Your task to perform on an android device: check data usage Image 0: 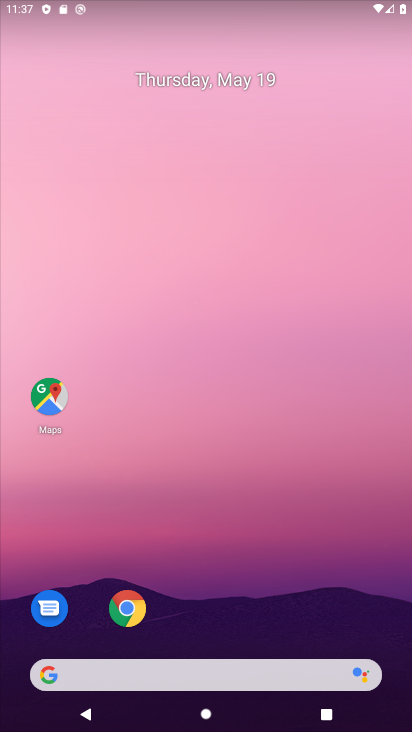
Step 0: drag from (335, 616) to (384, 120)
Your task to perform on an android device: check data usage Image 1: 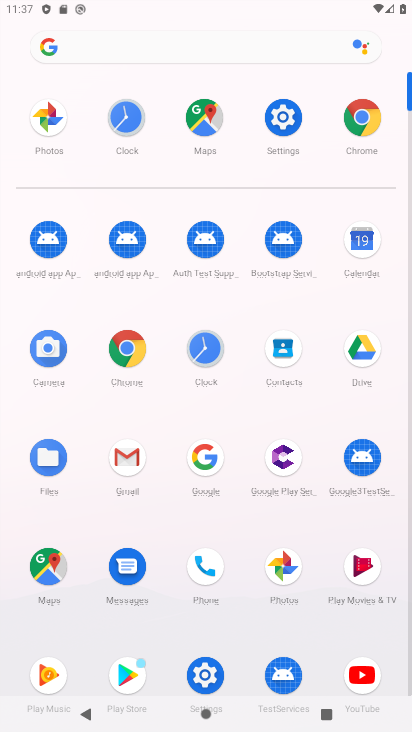
Step 1: click (295, 113)
Your task to perform on an android device: check data usage Image 2: 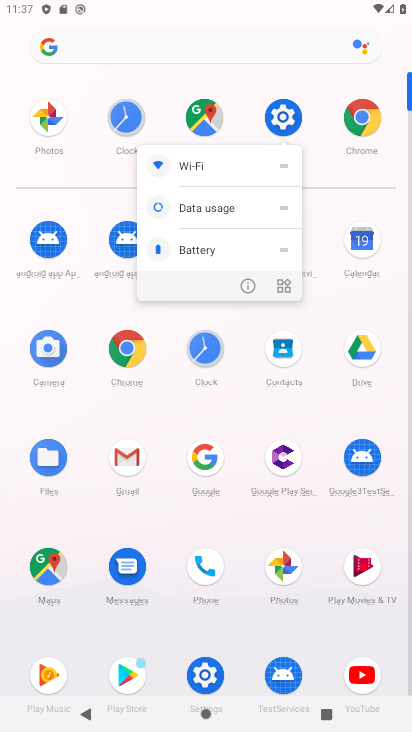
Step 2: click (295, 113)
Your task to perform on an android device: check data usage Image 3: 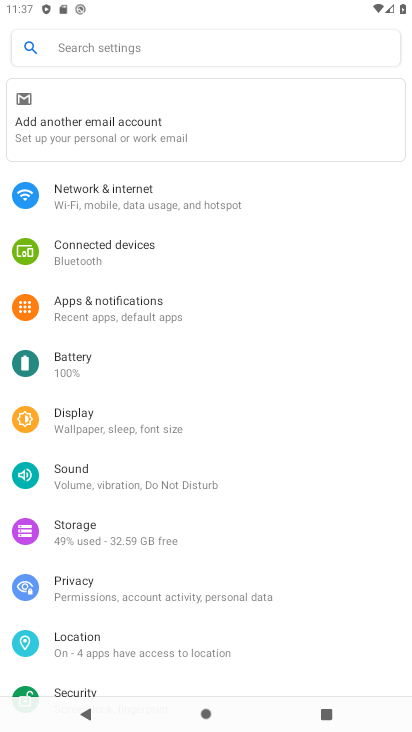
Step 3: drag from (325, 556) to (327, 362)
Your task to perform on an android device: check data usage Image 4: 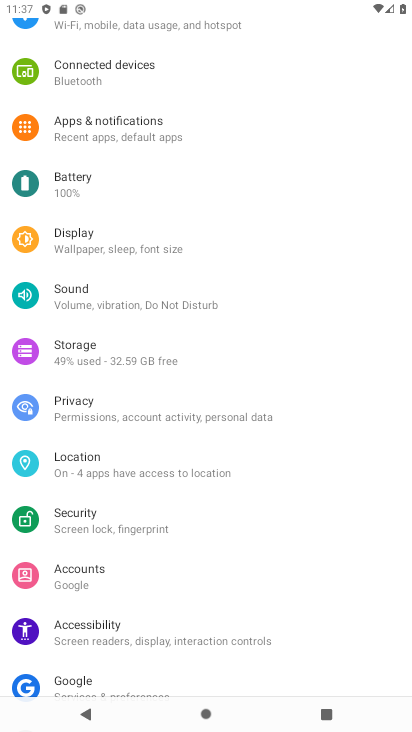
Step 4: drag from (329, 576) to (339, 472)
Your task to perform on an android device: check data usage Image 5: 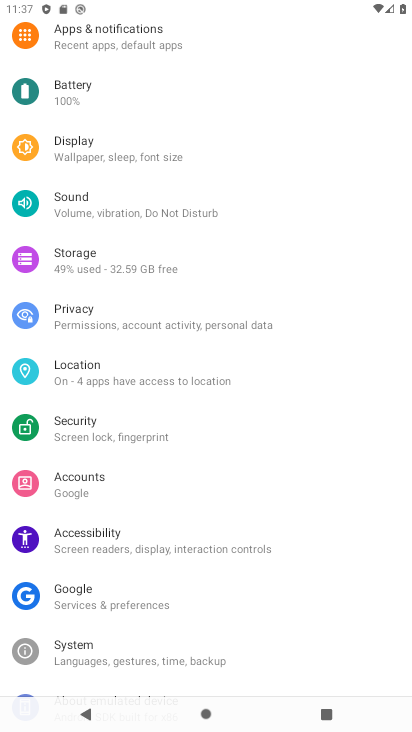
Step 5: drag from (341, 591) to (334, 420)
Your task to perform on an android device: check data usage Image 6: 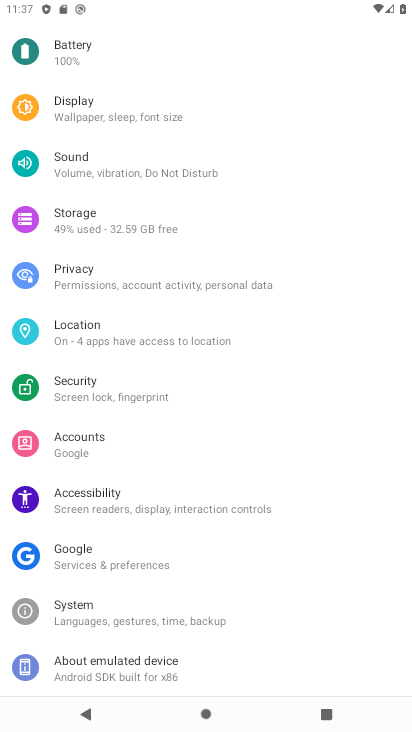
Step 6: drag from (330, 554) to (332, 405)
Your task to perform on an android device: check data usage Image 7: 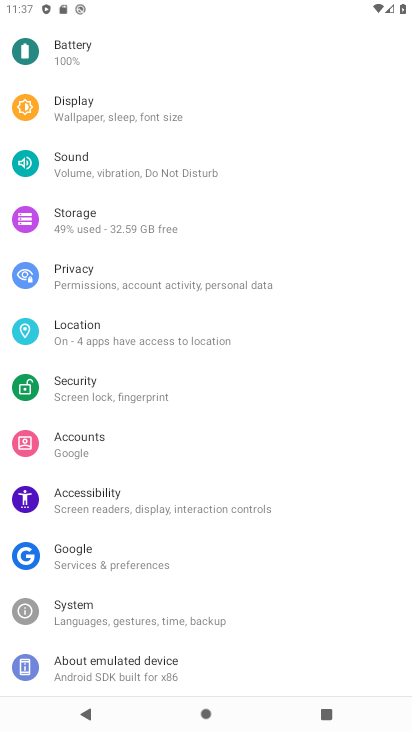
Step 7: drag from (311, 597) to (335, 397)
Your task to perform on an android device: check data usage Image 8: 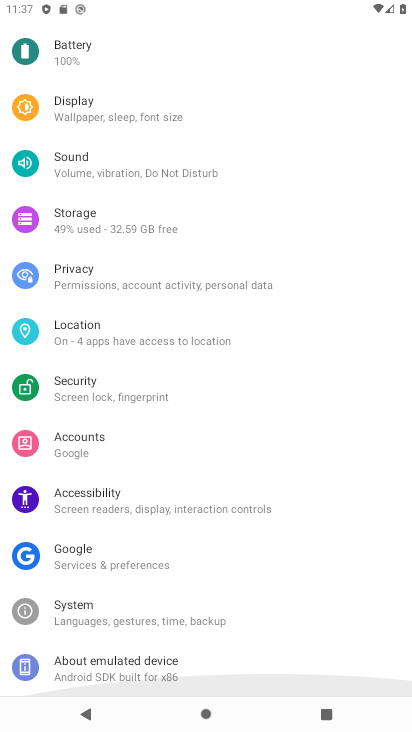
Step 8: drag from (348, 315) to (346, 445)
Your task to perform on an android device: check data usage Image 9: 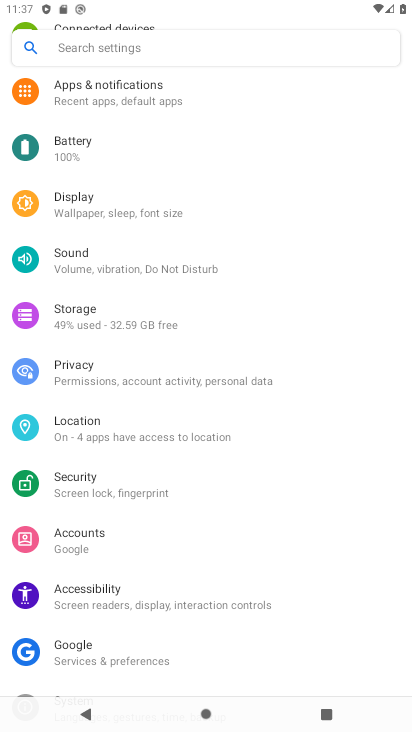
Step 9: drag from (356, 252) to (344, 384)
Your task to perform on an android device: check data usage Image 10: 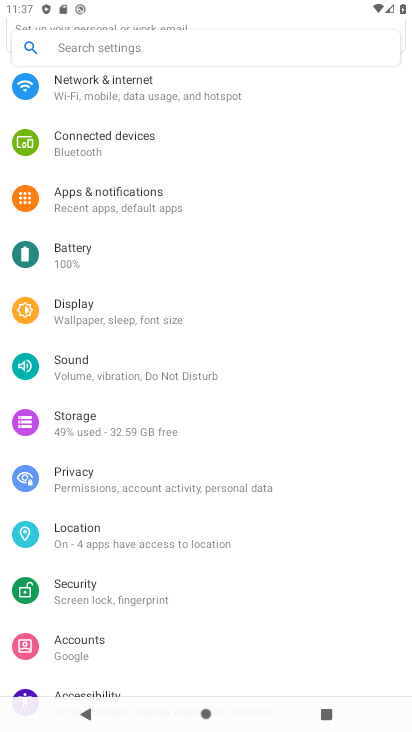
Step 10: drag from (334, 227) to (341, 326)
Your task to perform on an android device: check data usage Image 11: 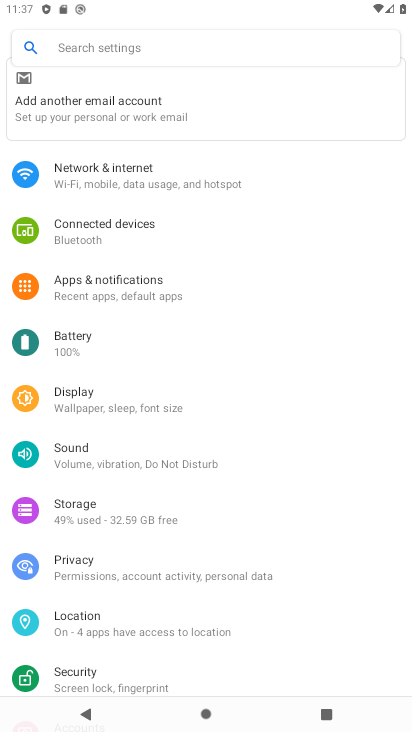
Step 11: drag from (335, 182) to (337, 306)
Your task to perform on an android device: check data usage Image 12: 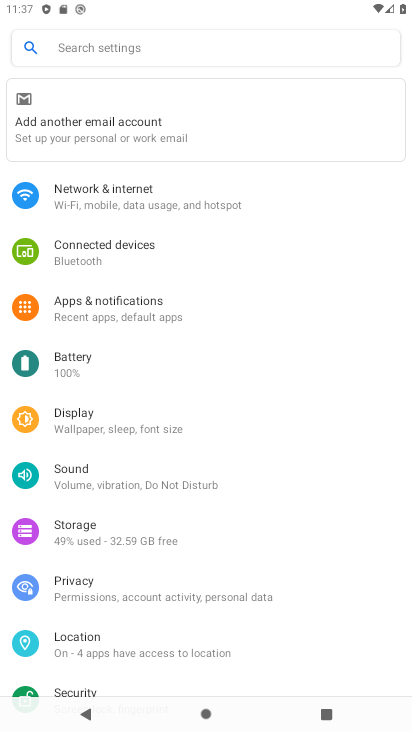
Step 12: drag from (315, 224) to (314, 343)
Your task to perform on an android device: check data usage Image 13: 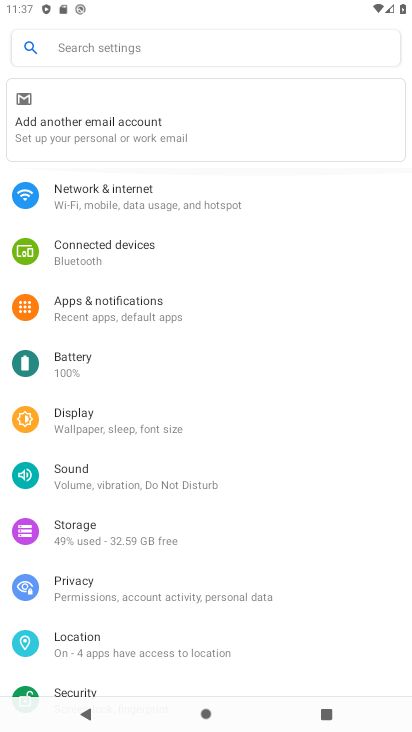
Step 13: click (203, 222)
Your task to perform on an android device: check data usage Image 14: 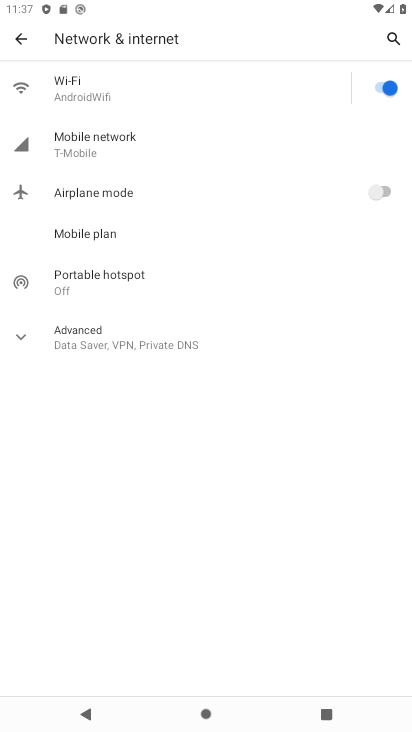
Step 14: click (124, 141)
Your task to perform on an android device: check data usage Image 15: 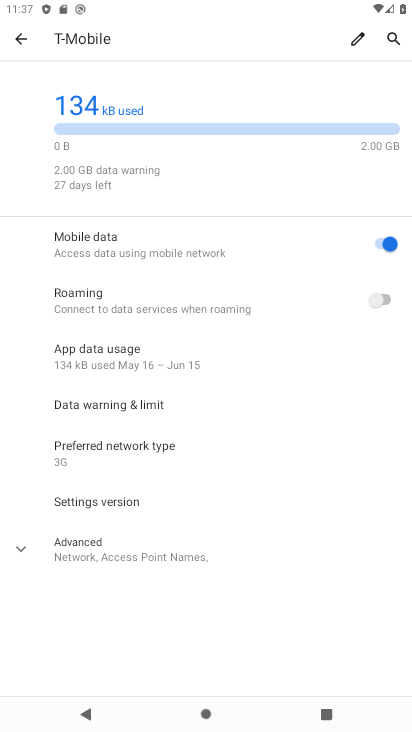
Step 15: click (162, 365)
Your task to perform on an android device: check data usage Image 16: 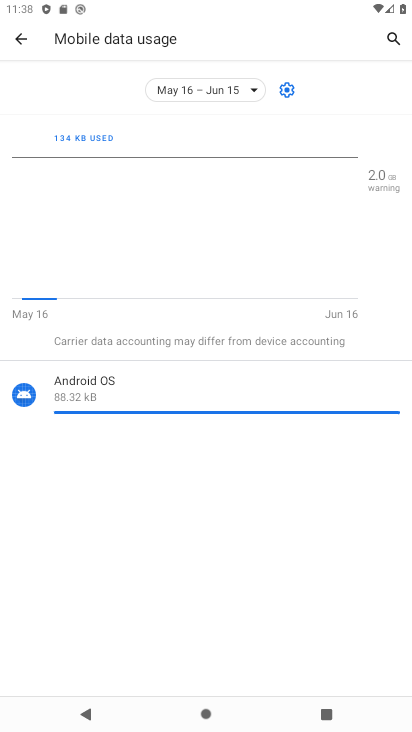
Step 16: task complete